Your task to perform on an android device: What's the weather? Image 0: 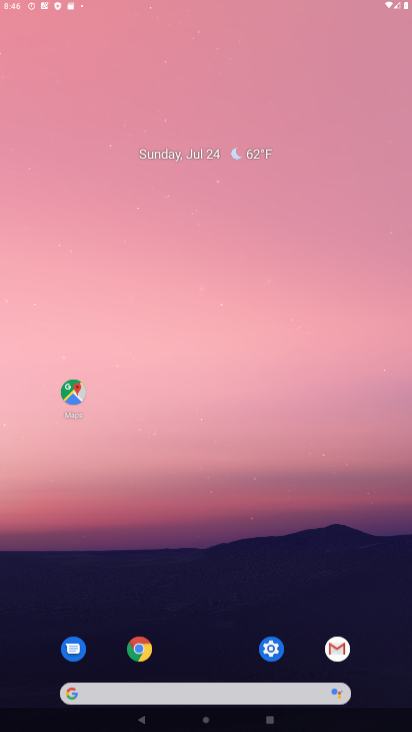
Step 0: click (185, 688)
Your task to perform on an android device: What's the weather? Image 1: 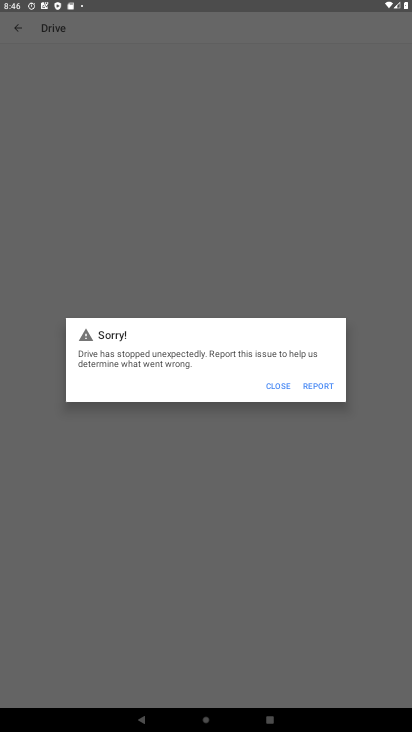
Step 1: click (281, 391)
Your task to perform on an android device: What's the weather? Image 2: 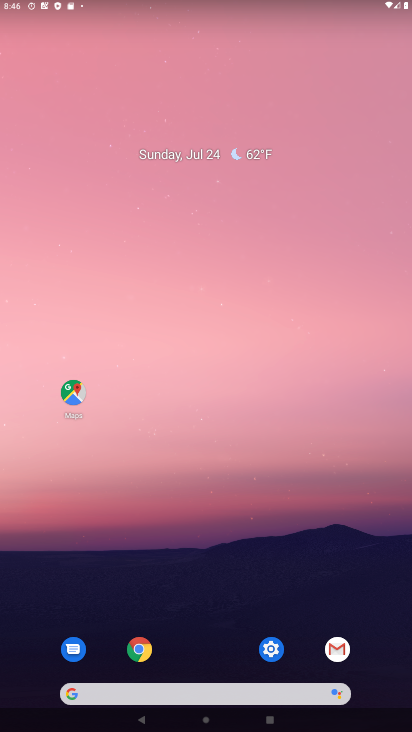
Step 2: click (220, 687)
Your task to perform on an android device: What's the weather? Image 3: 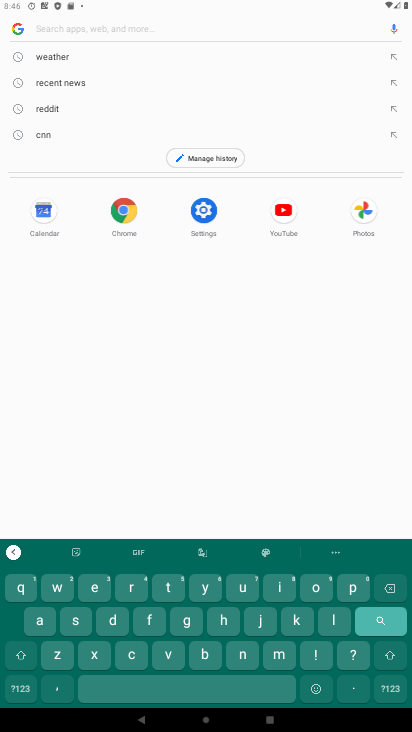
Step 3: click (55, 593)
Your task to perform on an android device: What's the weather? Image 4: 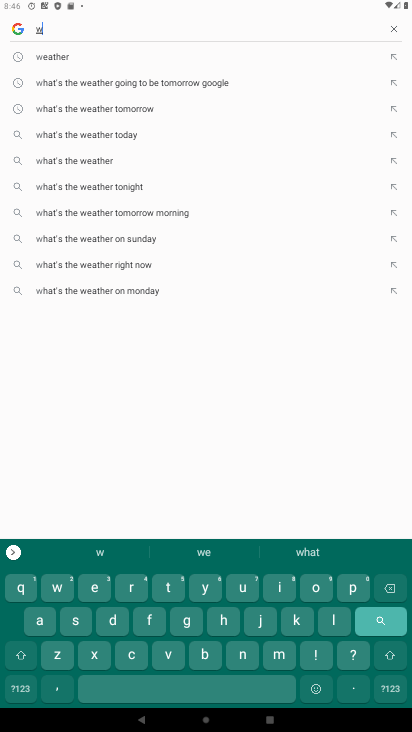
Step 4: click (123, 133)
Your task to perform on an android device: What's the weather? Image 5: 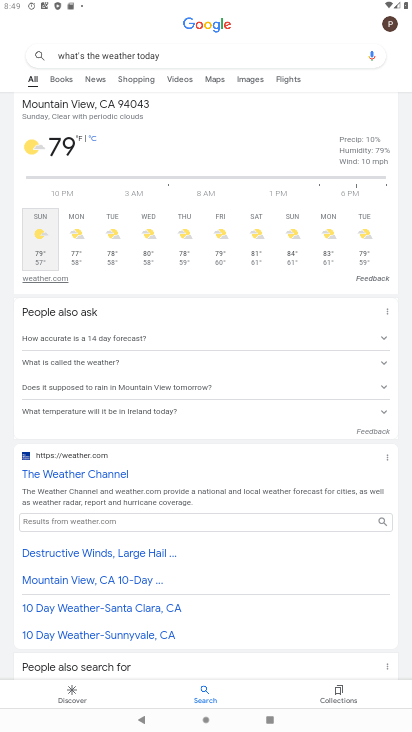
Step 5: task complete